Your task to perform on an android device: Open the stopwatch Image 0: 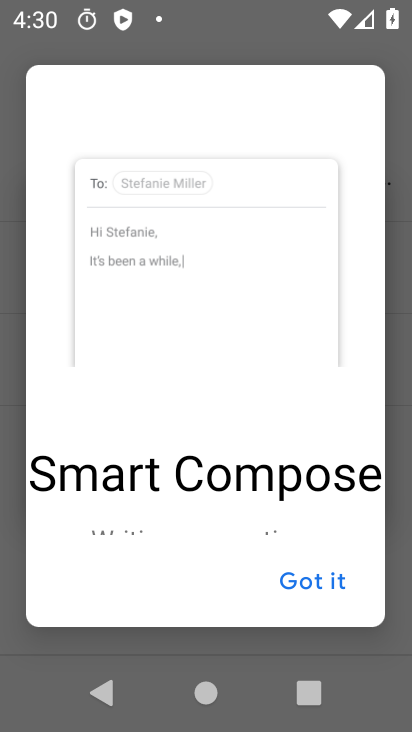
Step 0: press back button
Your task to perform on an android device: Open the stopwatch Image 1: 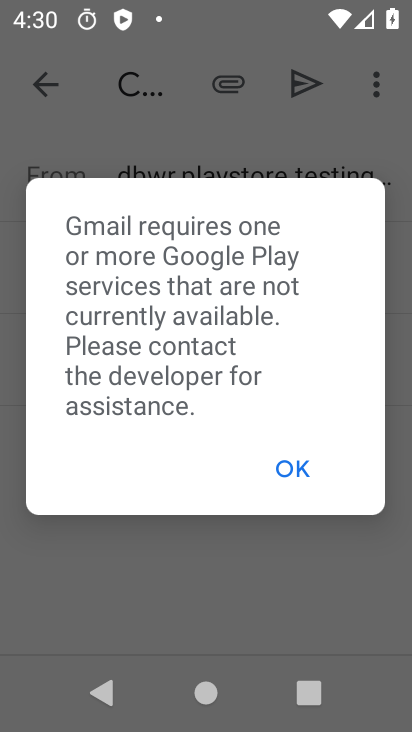
Step 1: press home button
Your task to perform on an android device: Open the stopwatch Image 2: 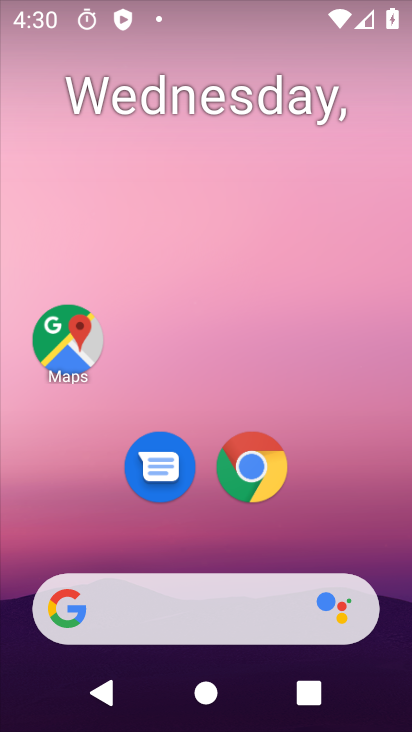
Step 2: drag from (393, 667) to (391, 202)
Your task to perform on an android device: Open the stopwatch Image 3: 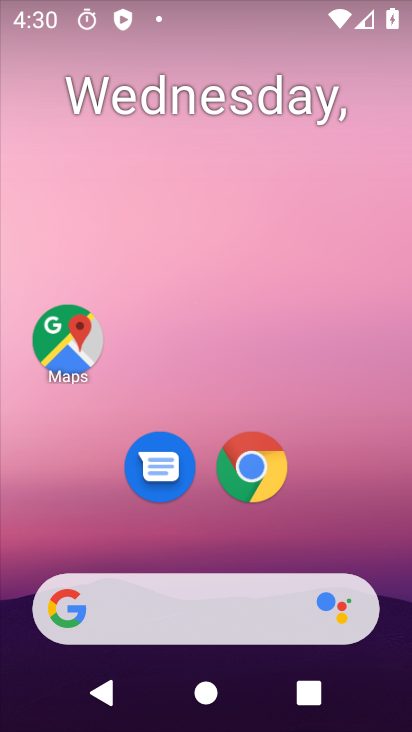
Step 3: drag from (388, 707) to (358, 237)
Your task to perform on an android device: Open the stopwatch Image 4: 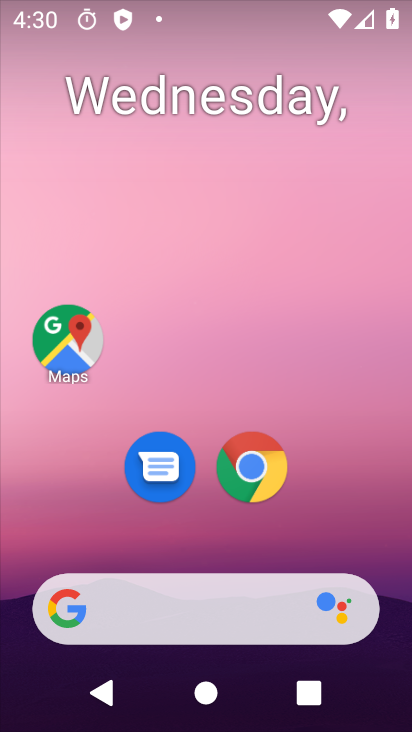
Step 4: drag from (385, 698) to (318, 58)
Your task to perform on an android device: Open the stopwatch Image 5: 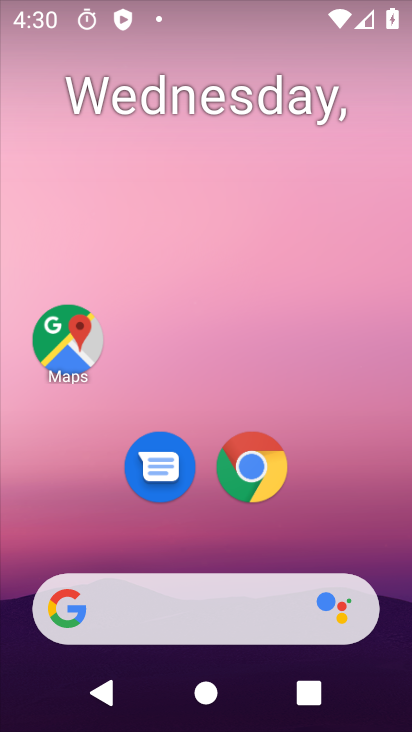
Step 5: drag from (383, 704) to (320, 109)
Your task to perform on an android device: Open the stopwatch Image 6: 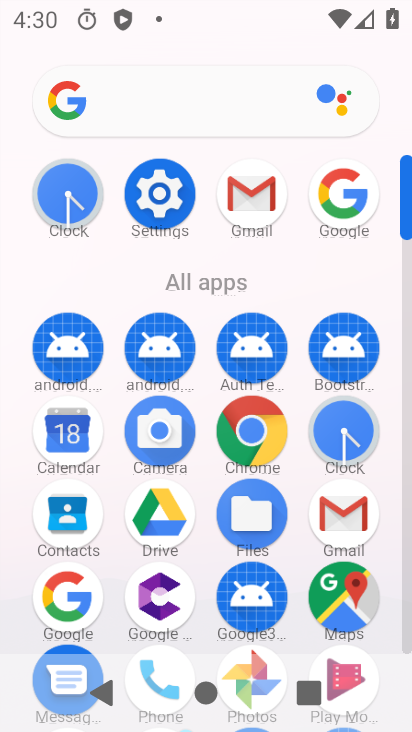
Step 6: click (324, 415)
Your task to perform on an android device: Open the stopwatch Image 7: 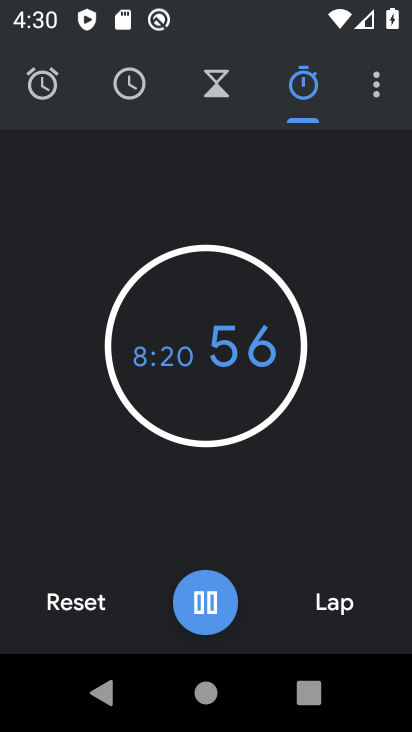
Step 7: click (212, 609)
Your task to perform on an android device: Open the stopwatch Image 8: 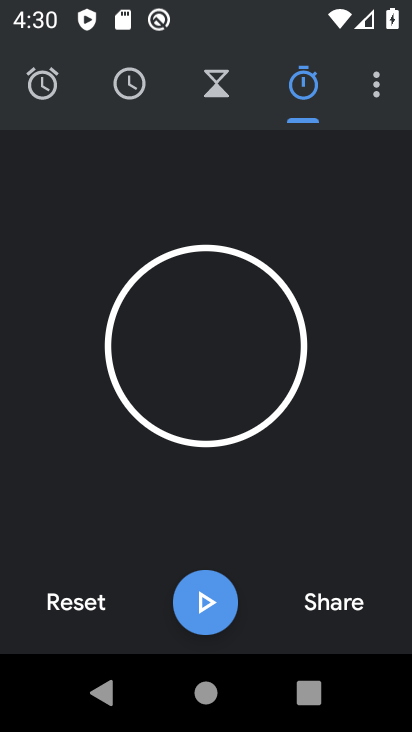
Step 8: click (85, 603)
Your task to perform on an android device: Open the stopwatch Image 9: 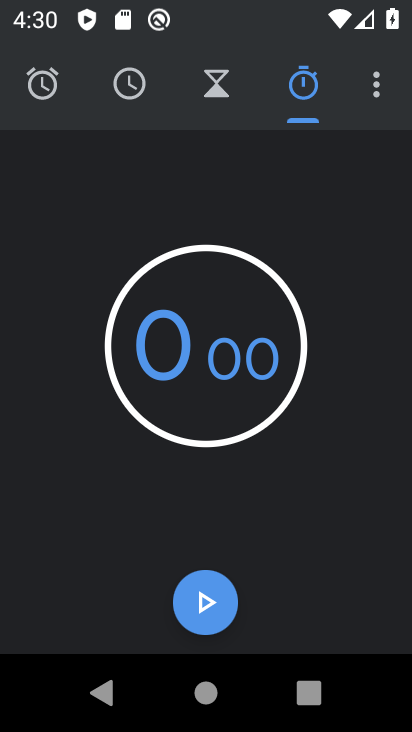
Step 9: click (204, 613)
Your task to perform on an android device: Open the stopwatch Image 10: 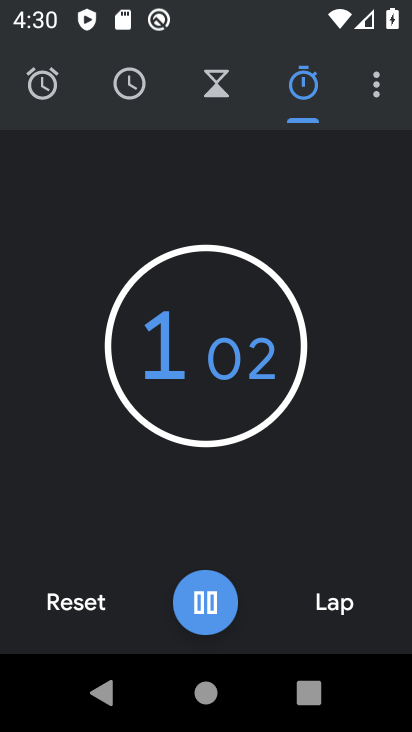
Step 10: task complete